Your task to perform on an android device: create a new album in the google photos Image 0: 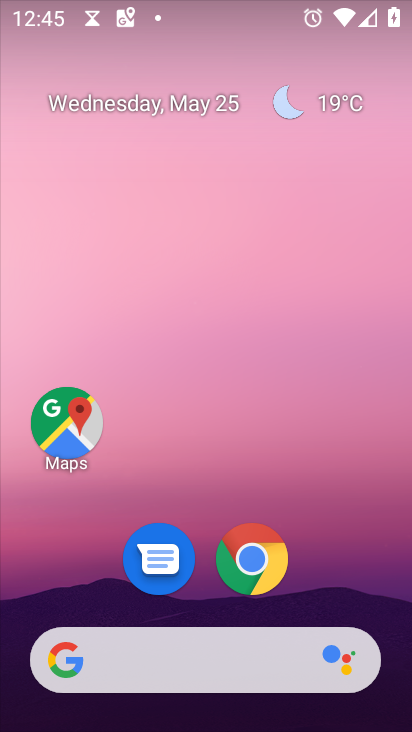
Step 0: drag from (354, 588) to (405, 25)
Your task to perform on an android device: create a new album in the google photos Image 1: 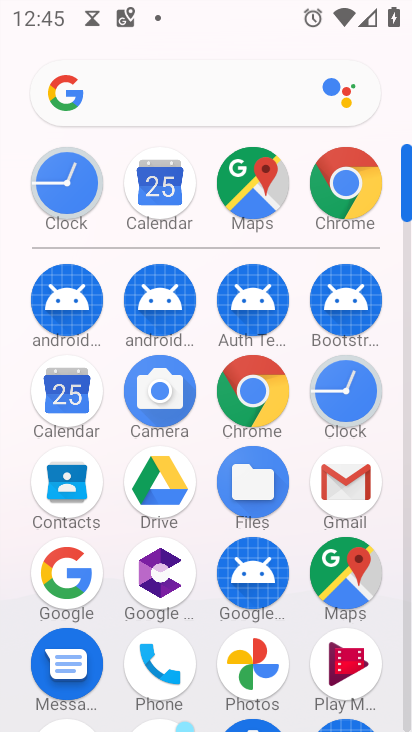
Step 1: click (264, 671)
Your task to perform on an android device: create a new album in the google photos Image 2: 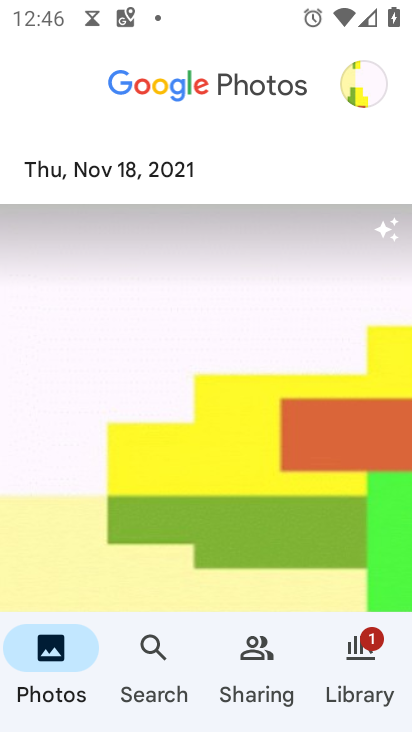
Step 2: task complete